Your task to perform on an android device: turn off location Image 0: 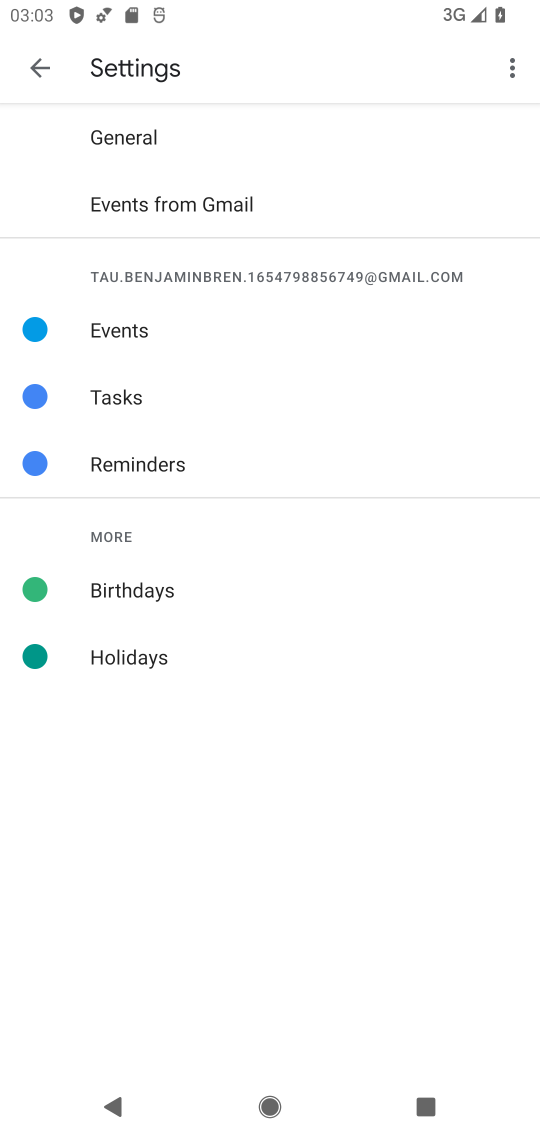
Step 0: press home button
Your task to perform on an android device: turn off location Image 1: 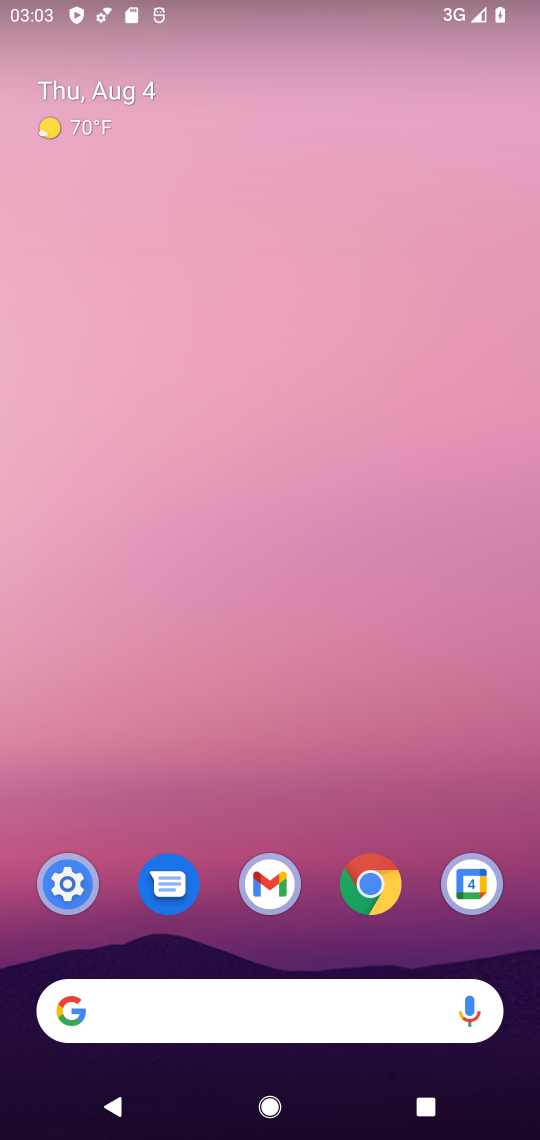
Step 1: drag from (311, 831) to (344, 189)
Your task to perform on an android device: turn off location Image 2: 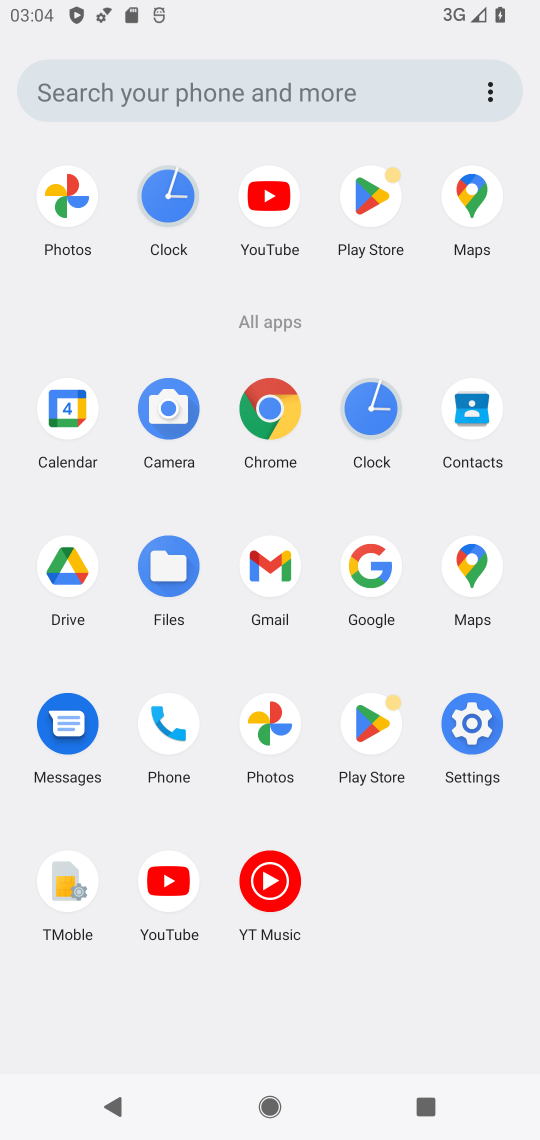
Step 2: click (472, 726)
Your task to perform on an android device: turn off location Image 3: 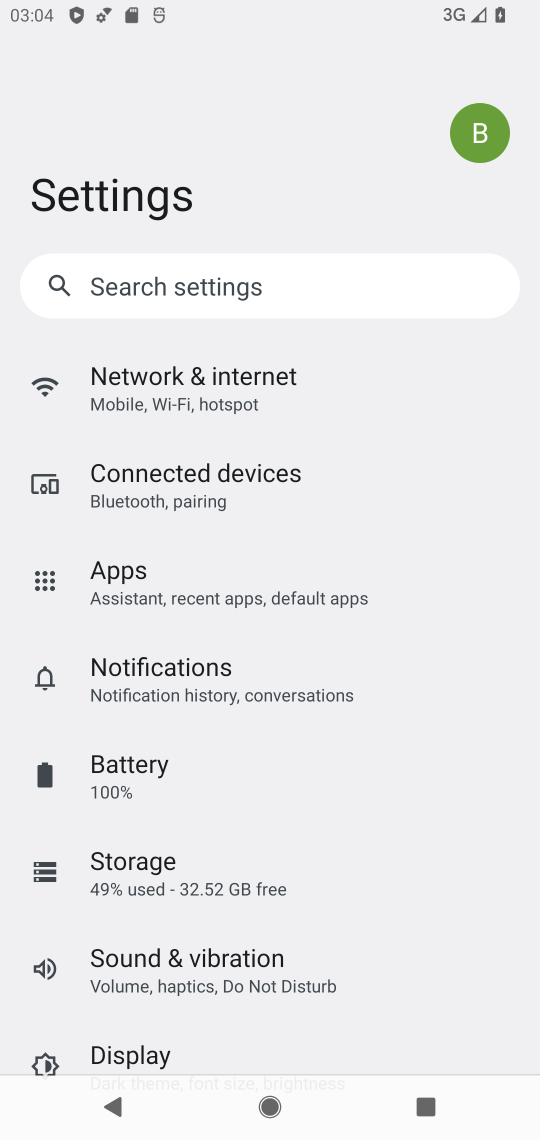
Step 3: drag from (443, 921) to (439, 744)
Your task to perform on an android device: turn off location Image 4: 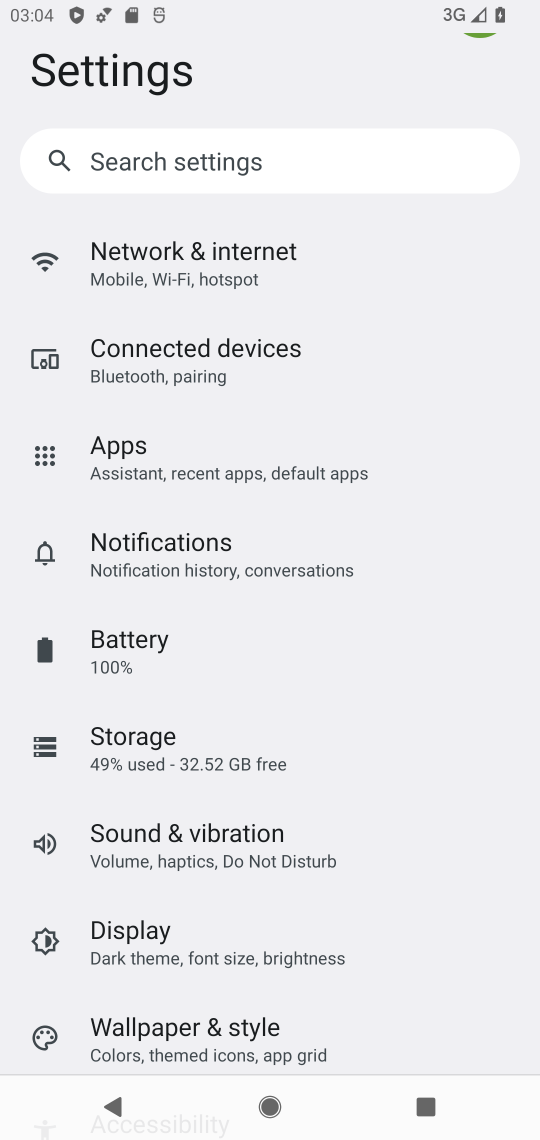
Step 4: drag from (438, 919) to (443, 747)
Your task to perform on an android device: turn off location Image 5: 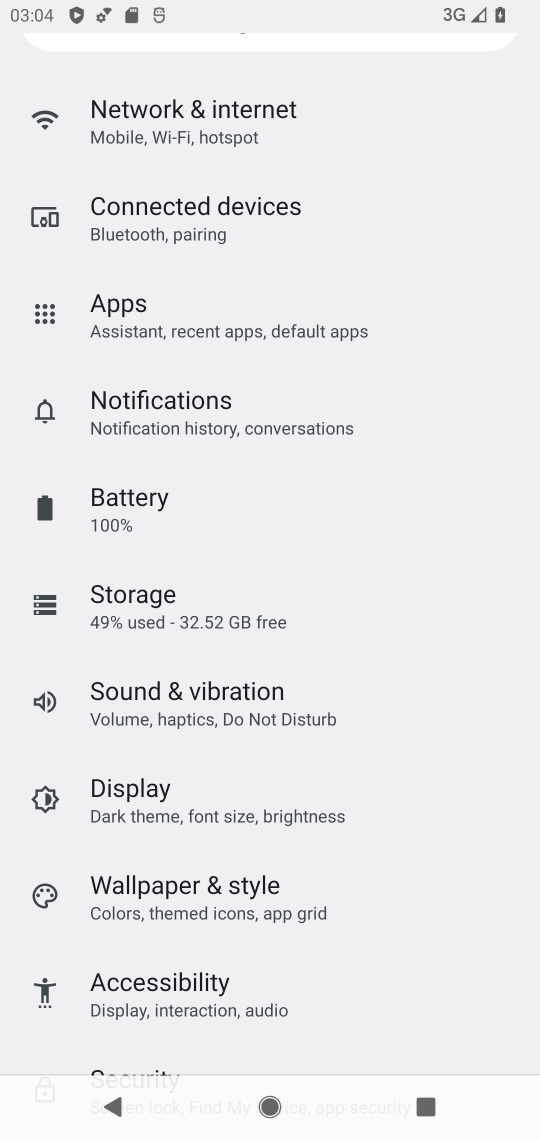
Step 5: drag from (438, 936) to (440, 813)
Your task to perform on an android device: turn off location Image 6: 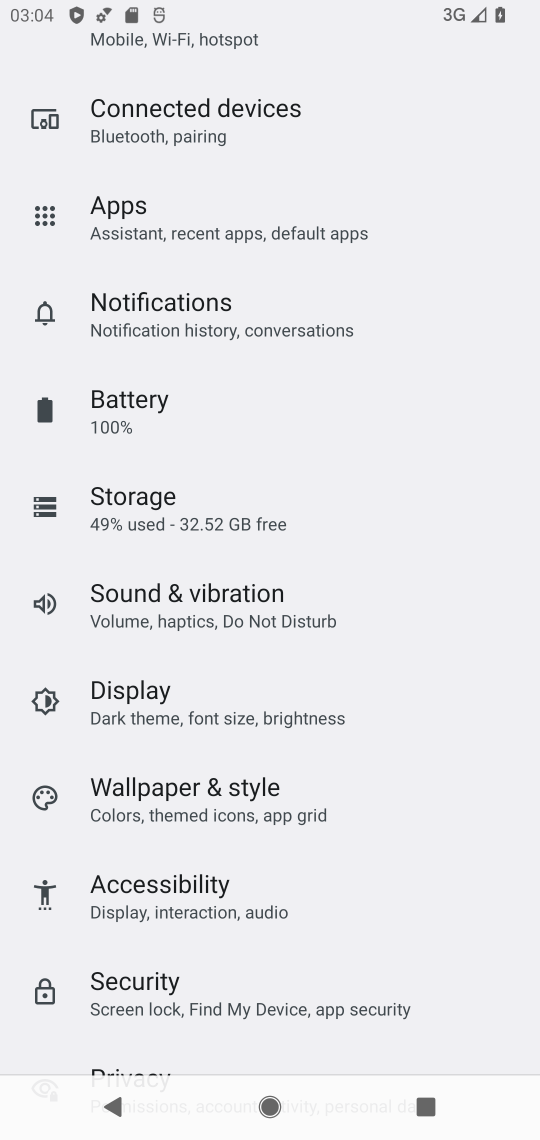
Step 6: drag from (485, 977) to (483, 764)
Your task to perform on an android device: turn off location Image 7: 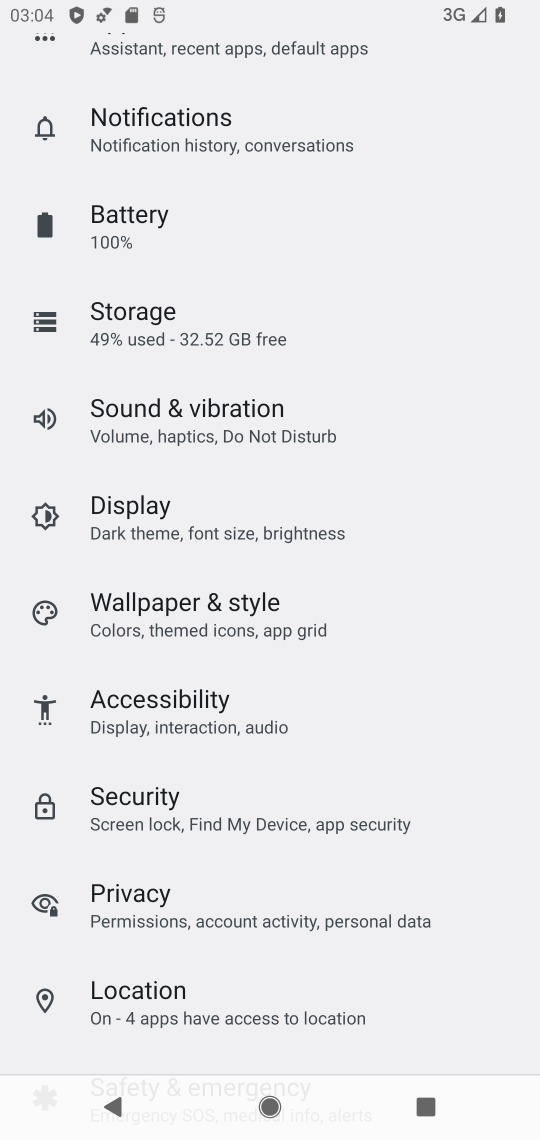
Step 7: drag from (469, 999) to (471, 835)
Your task to perform on an android device: turn off location Image 8: 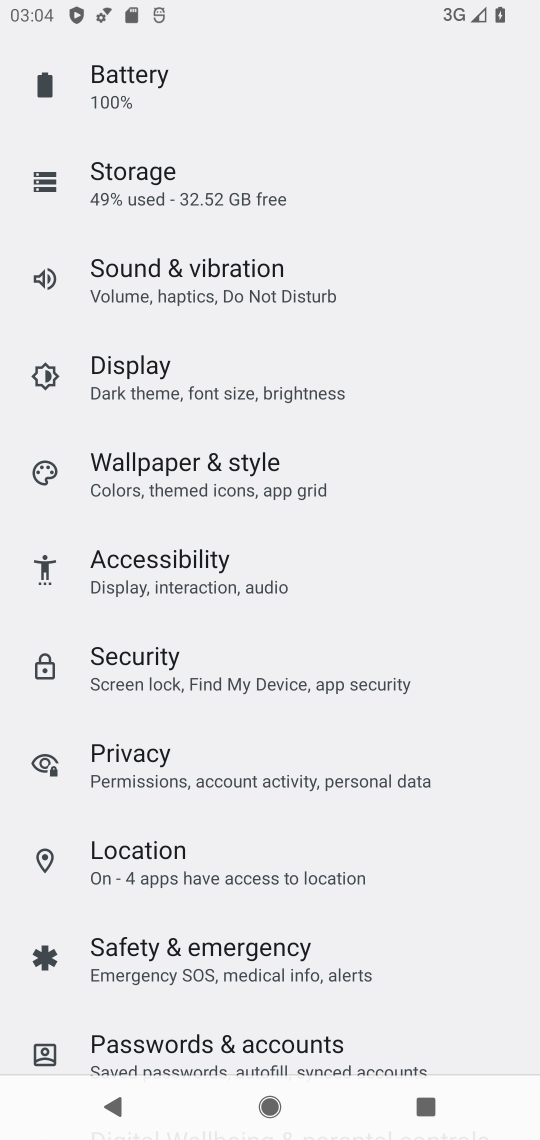
Step 8: drag from (469, 988) to (467, 735)
Your task to perform on an android device: turn off location Image 9: 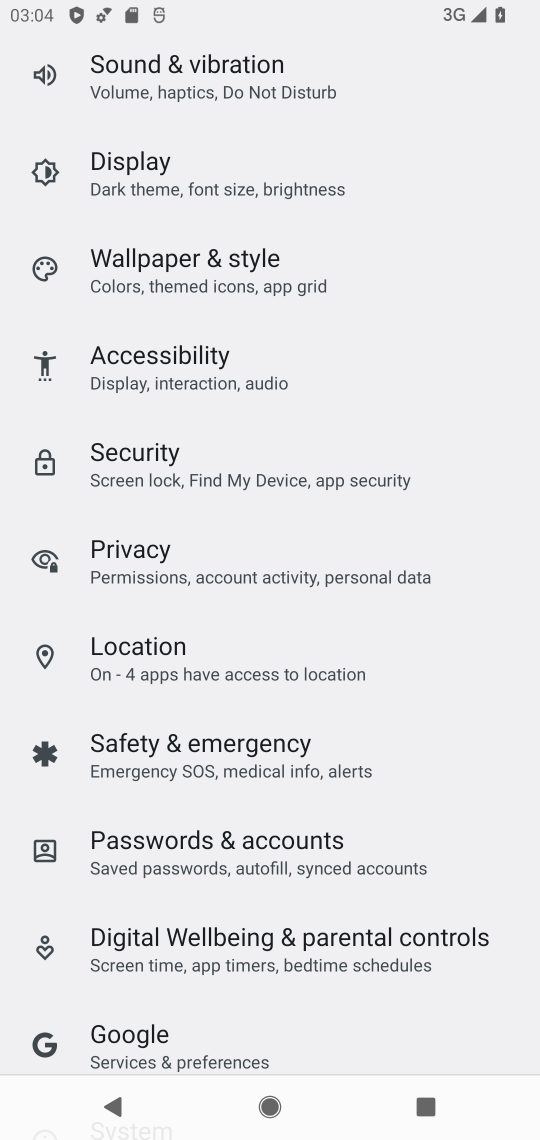
Step 9: drag from (467, 1009) to (477, 760)
Your task to perform on an android device: turn off location Image 10: 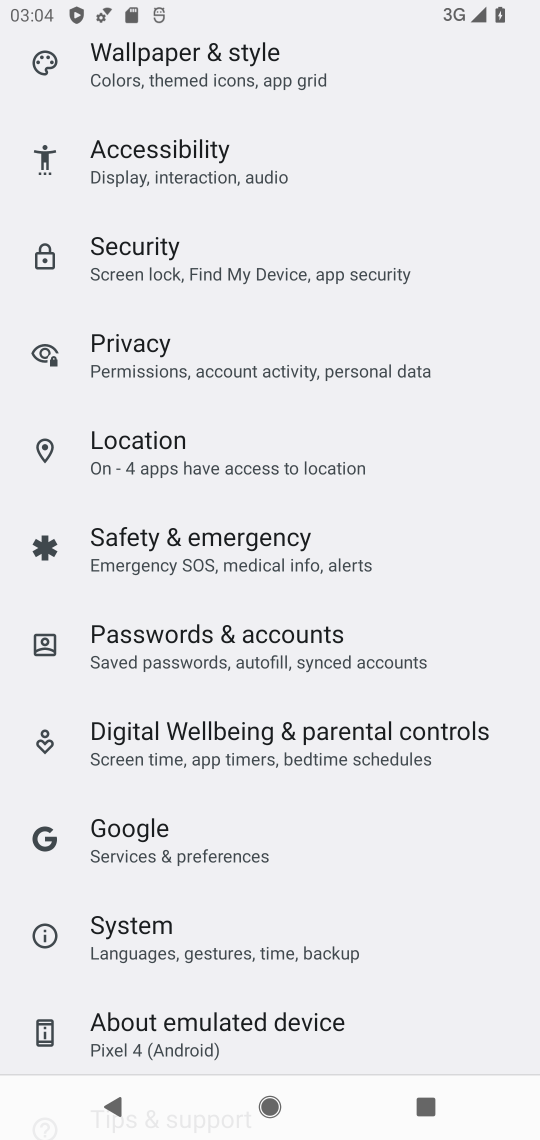
Step 10: drag from (468, 960) to (459, 754)
Your task to perform on an android device: turn off location Image 11: 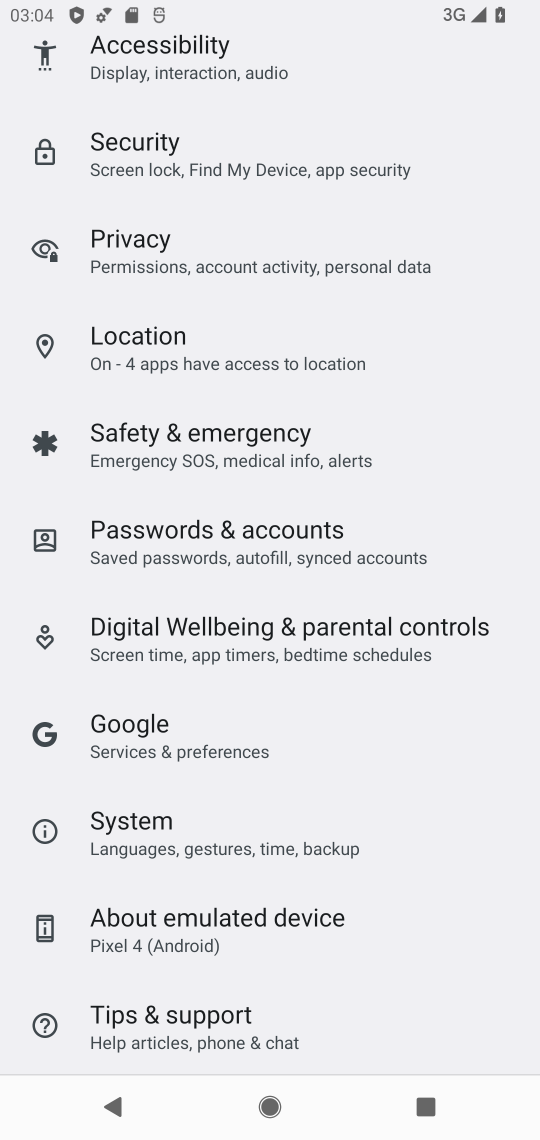
Step 11: click (232, 349)
Your task to perform on an android device: turn off location Image 12: 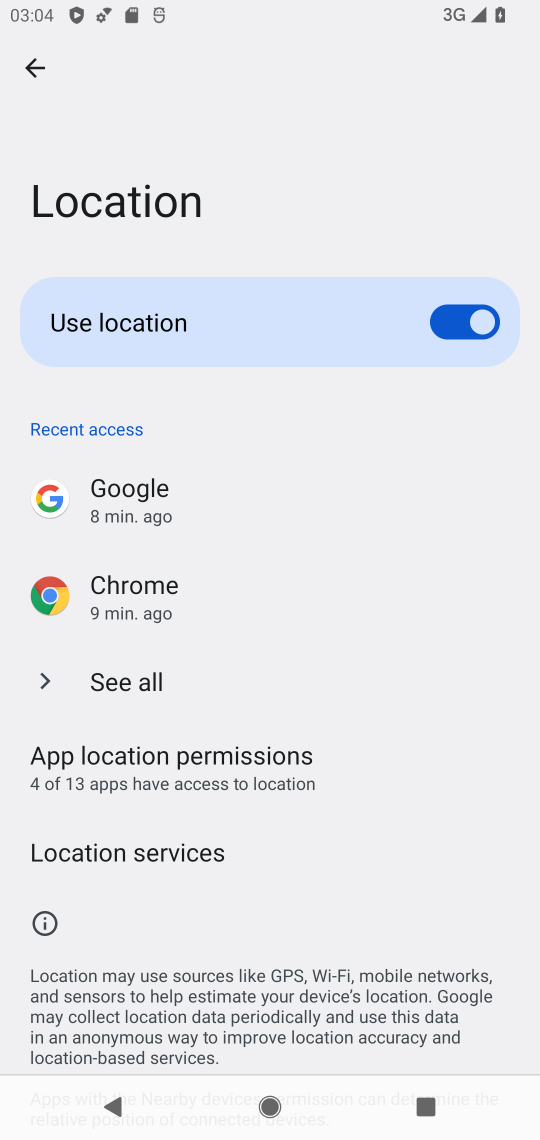
Step 12: click (477, 308)
Your task to perform on an android device: turn off location Image 13: 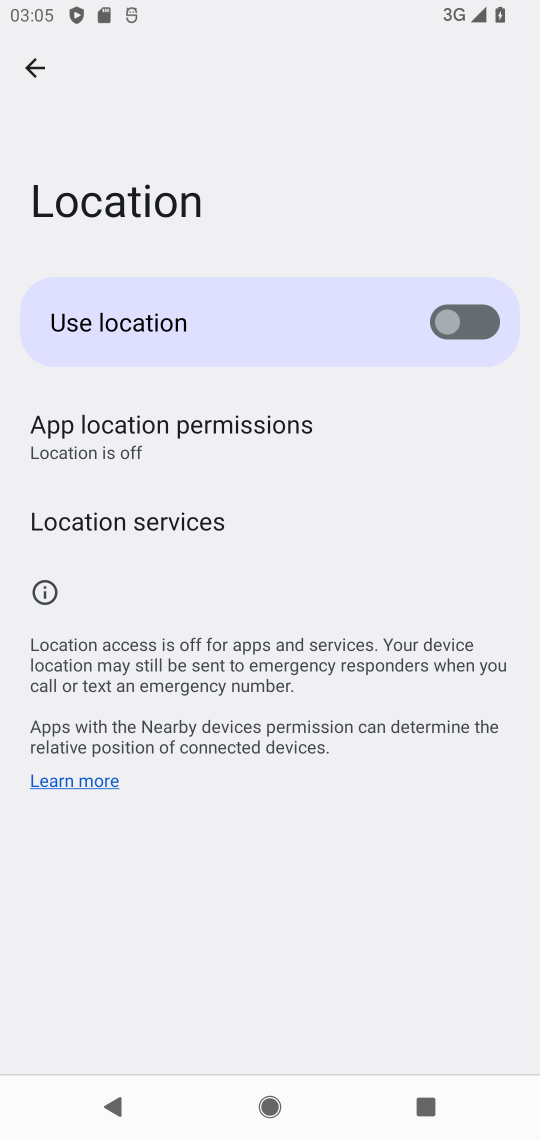
Step 13: task complete